Your task to perform on an android device: open app "Spotify" Image 0: 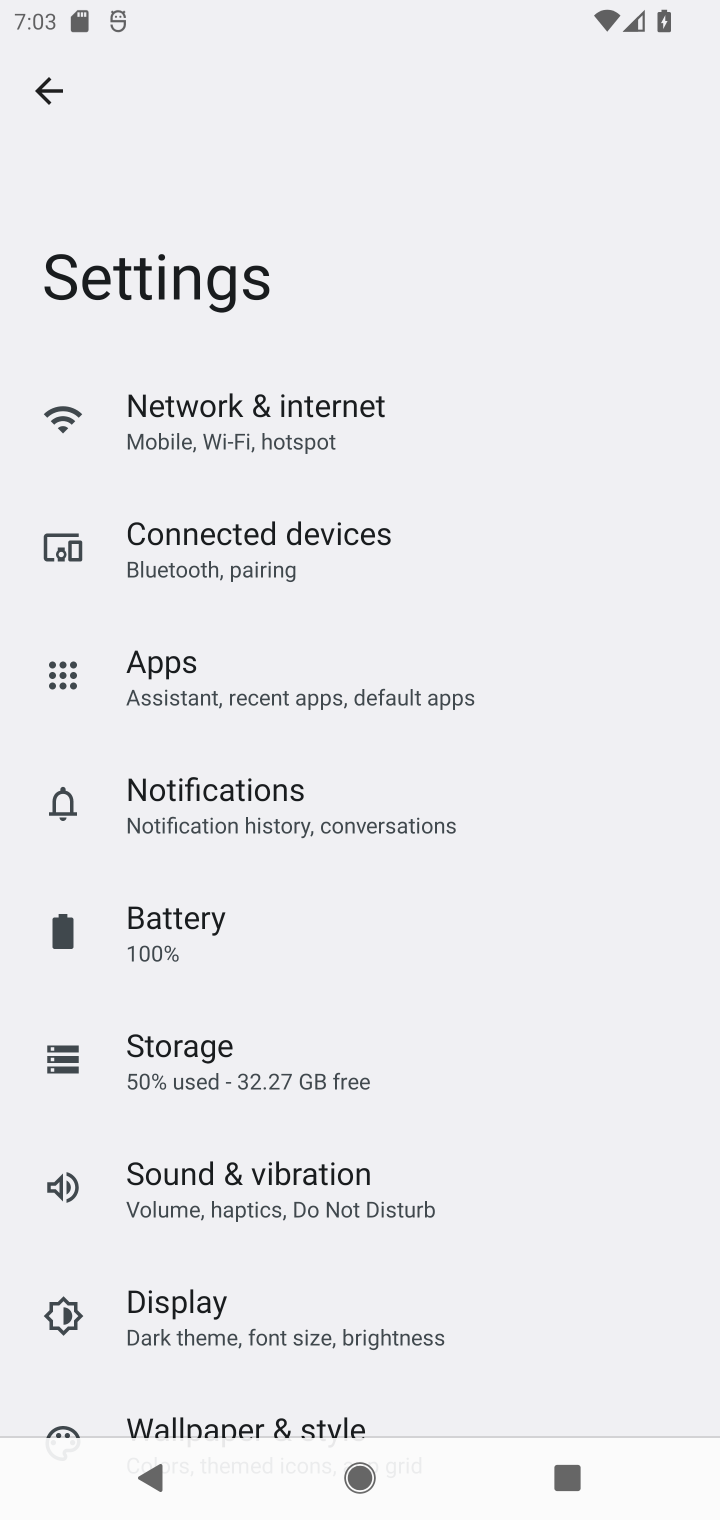
Step 0: press home button
Your task to perform on an android device: open app "Spotify" Image 1: 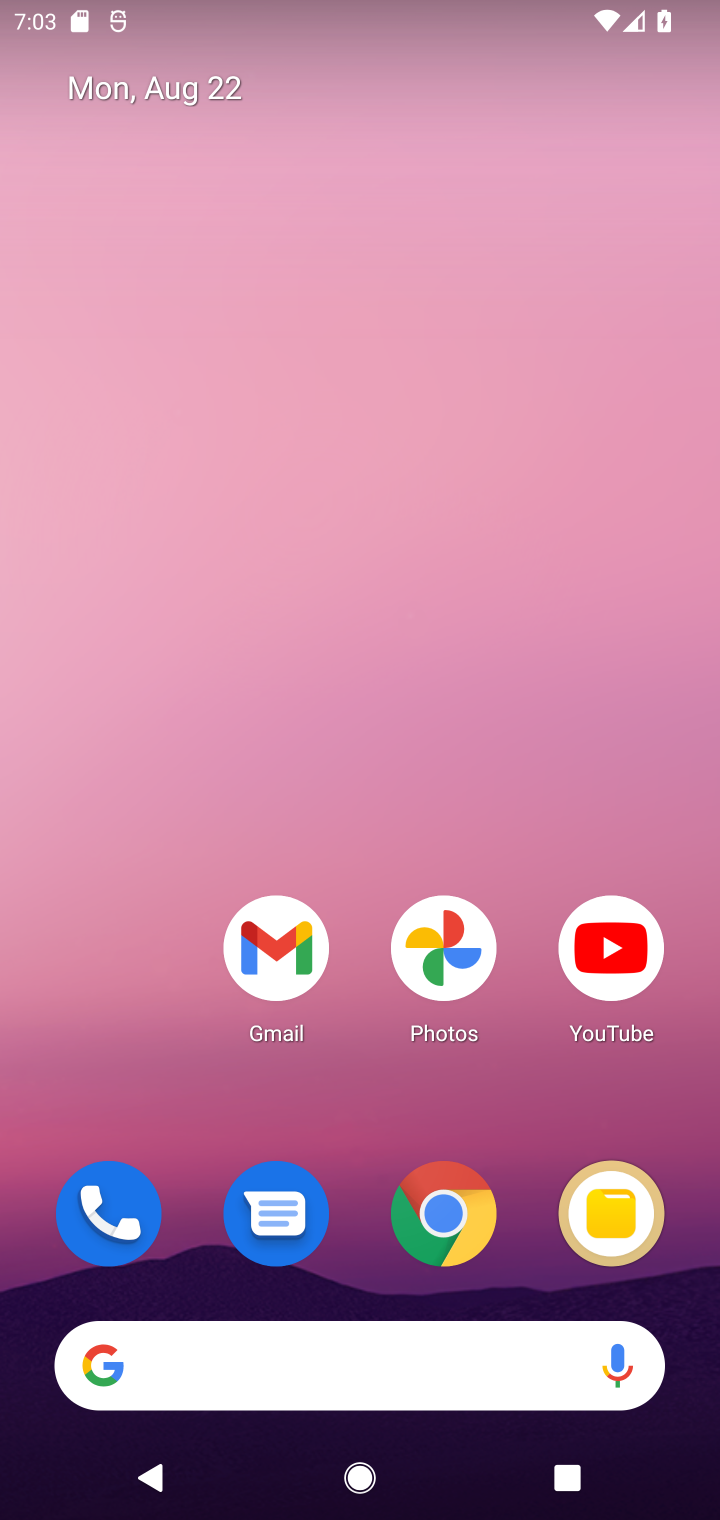
Step 1: drag from (364, 1105) to (157, 13)
Your task to perform on an android device: open app "Spotify" Image 2: 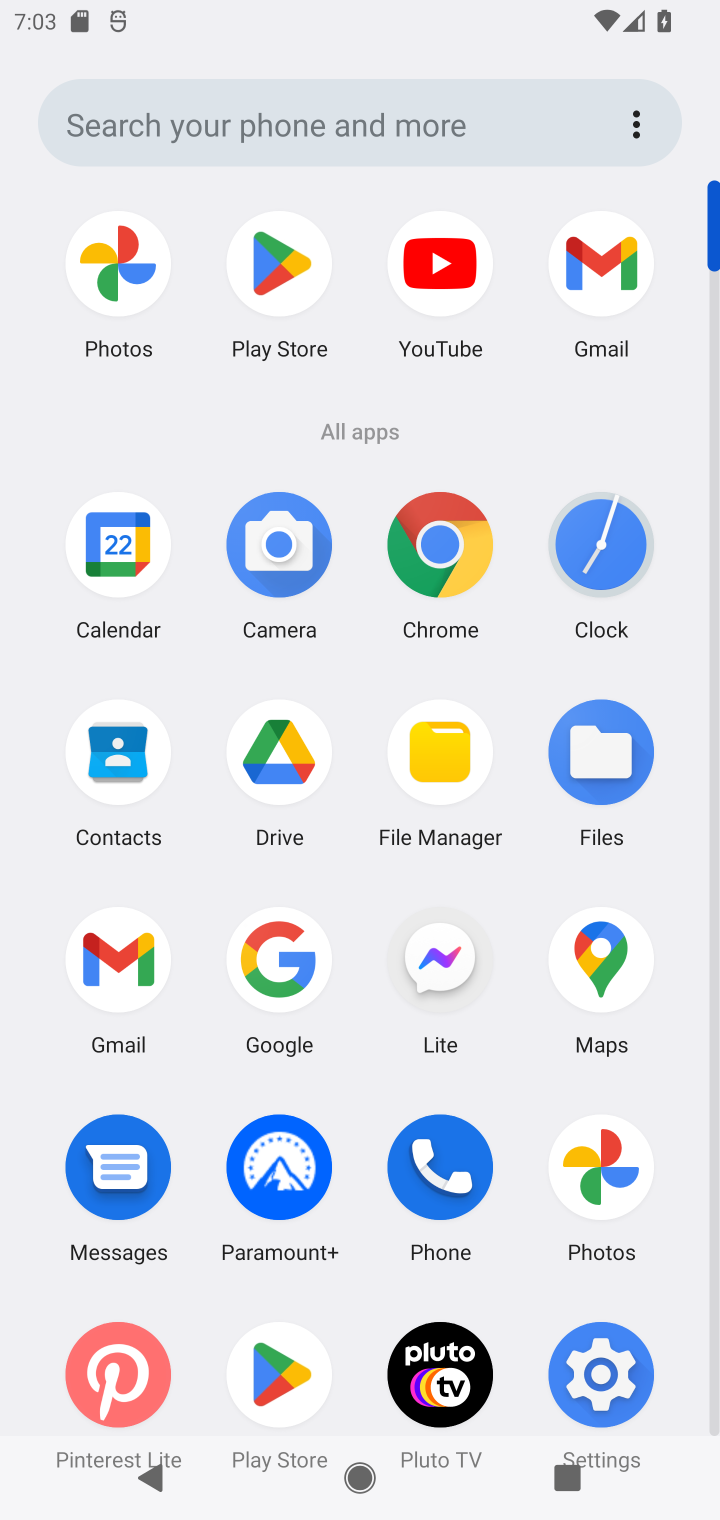
Step 2: click (265, 261)
Your task to perform on an android device: open app "Spotify" Image 3: 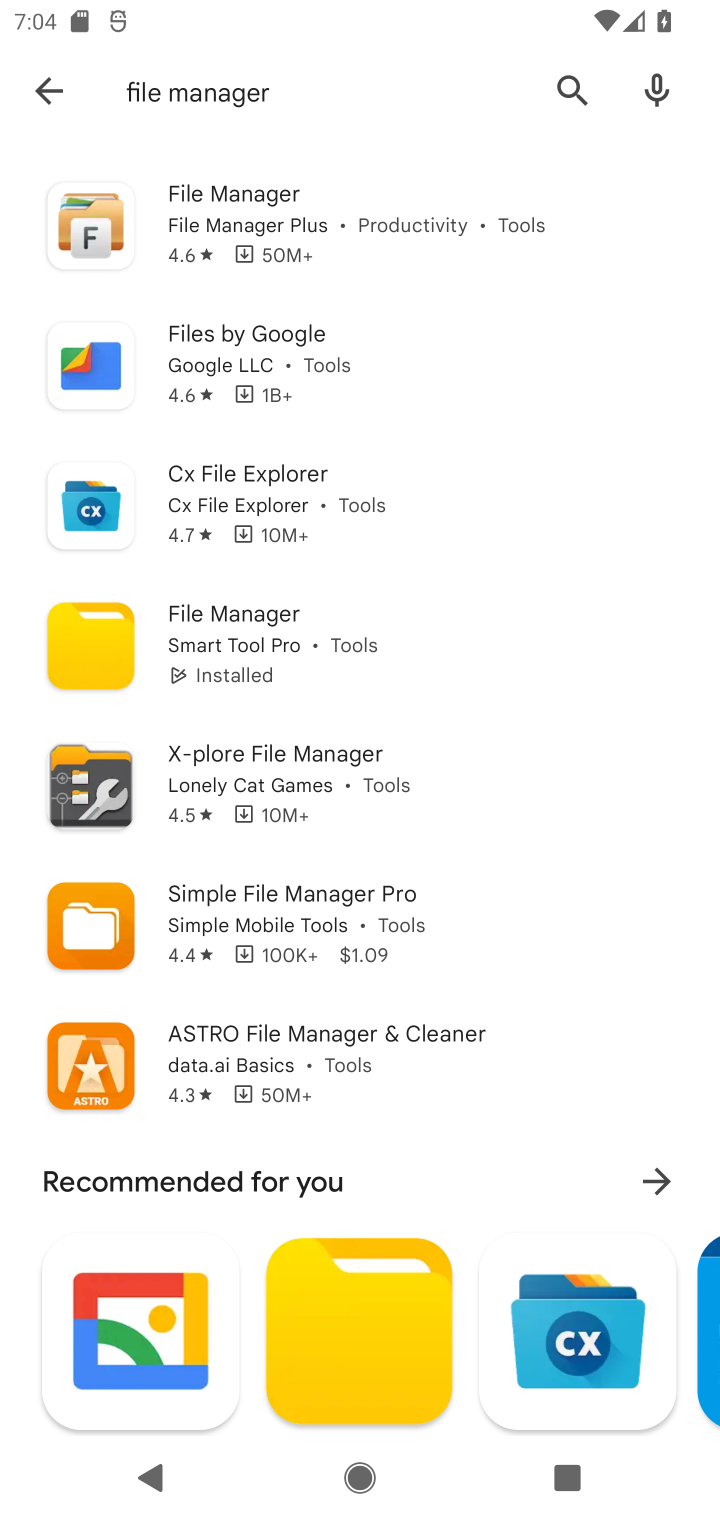
Step 3: click (565, 89)
Your task to perform on an android device: open app "Spotify" Image 4: 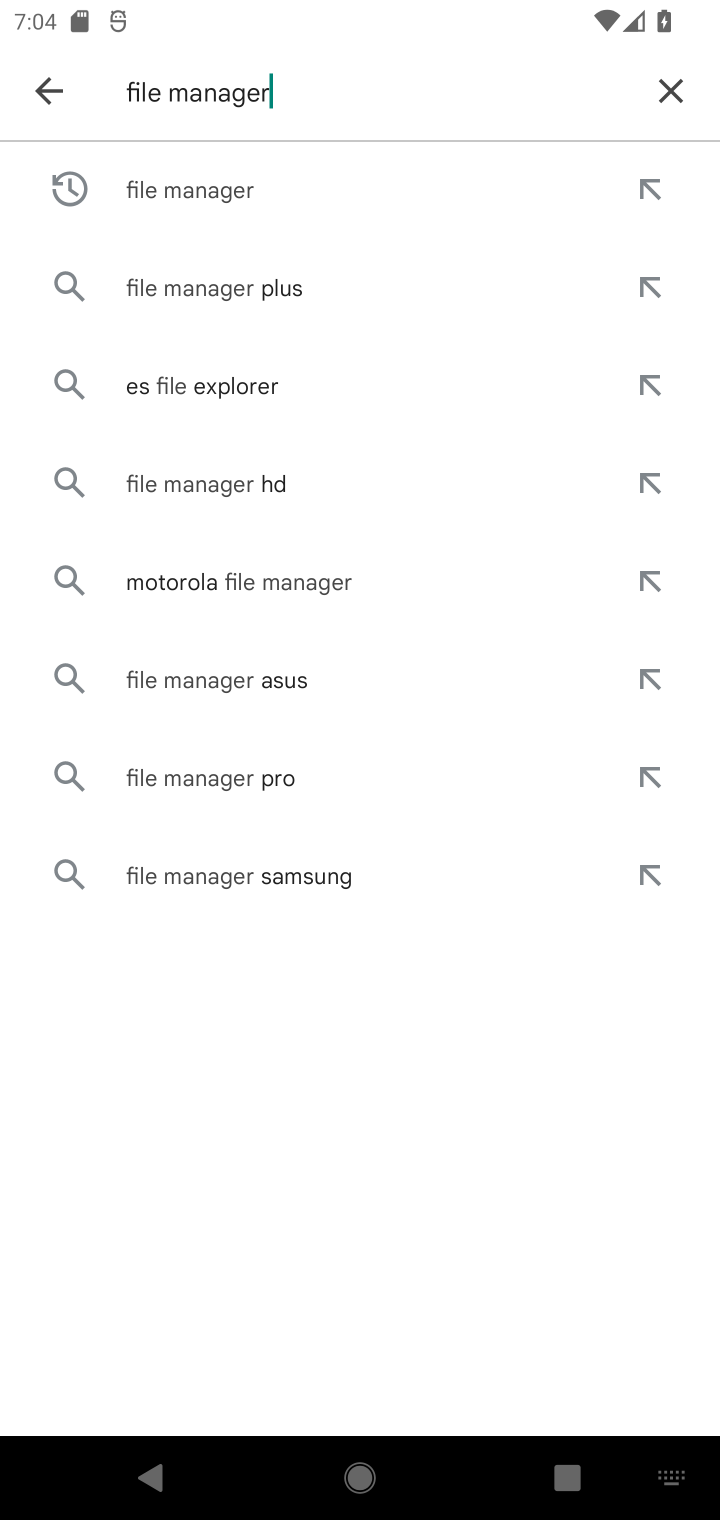
Step 4: click (660, 88)
Your task to perform on an android device: open app "Spotify" Image 5: 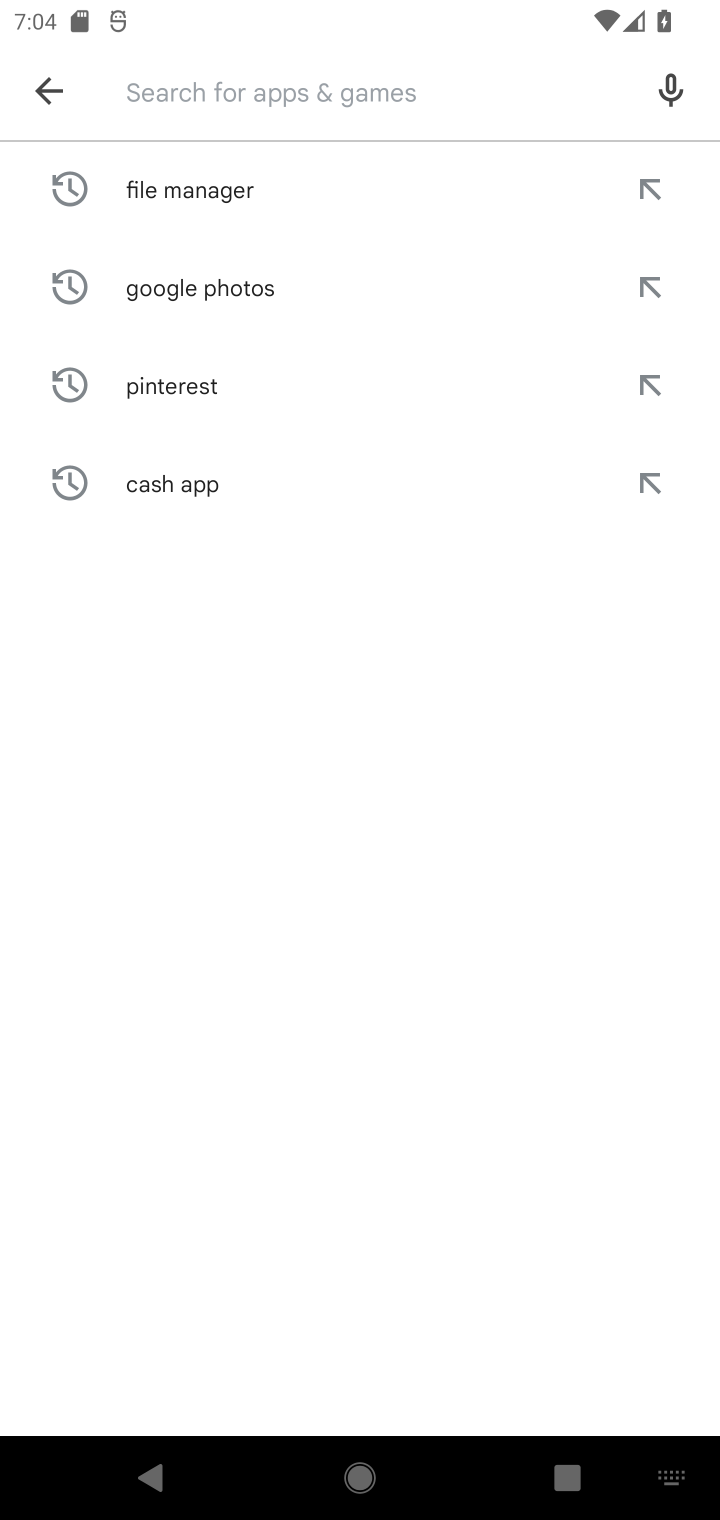
Step 5: type "Spotify"
Your task to perform on an android device: open app "Spotify" Image 6: 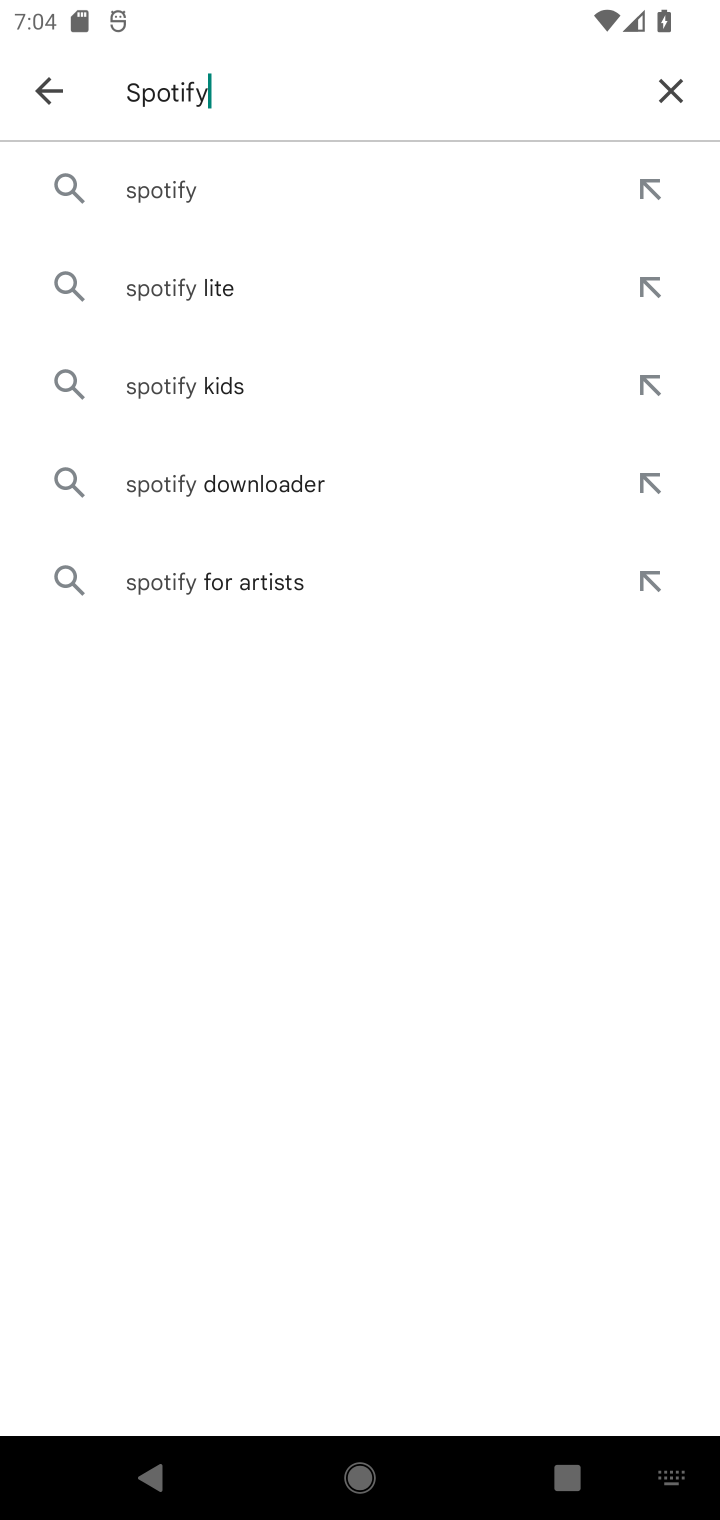
Step 6: click (108, 186)
Your task to perform on an android device: open app "Spotify" Image 7: 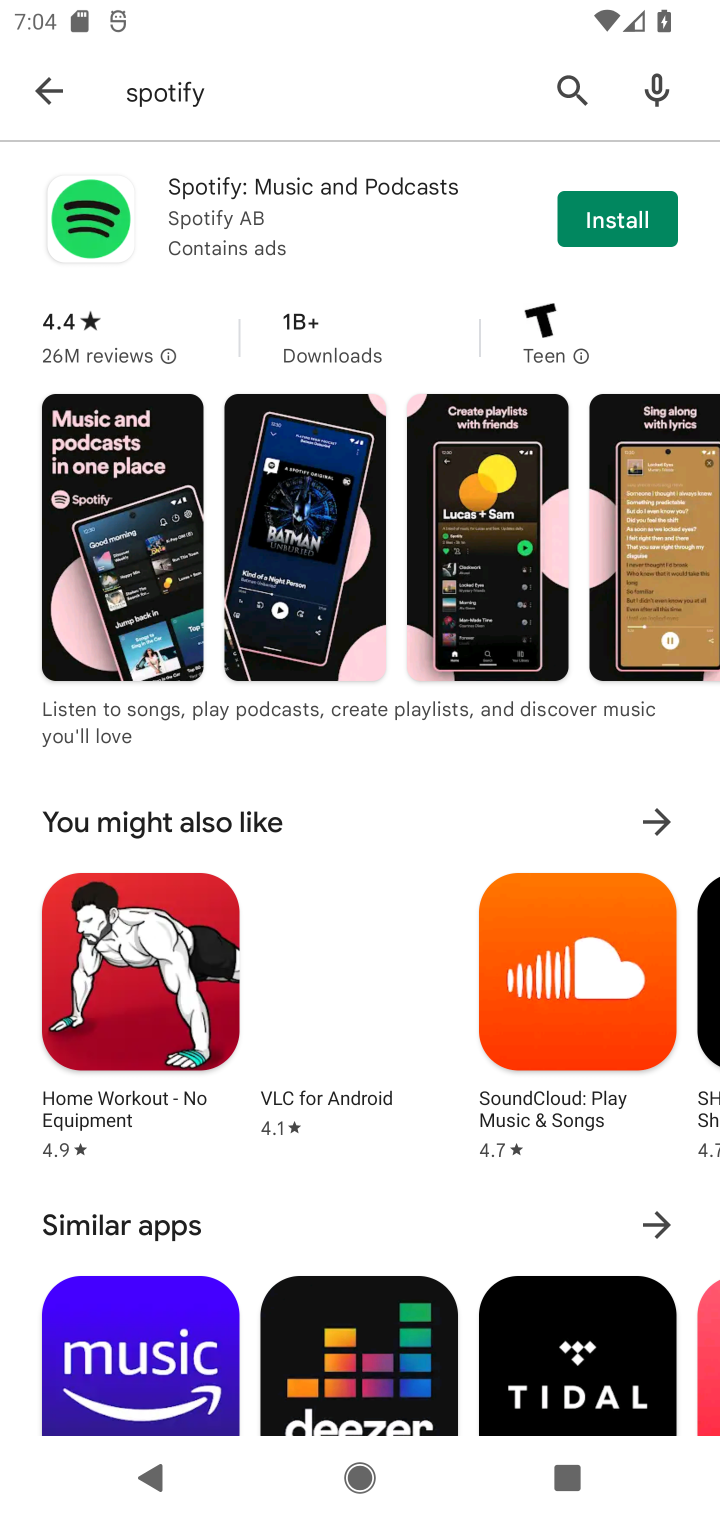
Step 7: task complete